Your task to perform on an android device: open the mobile data screen to see how much data has been used Image 0: 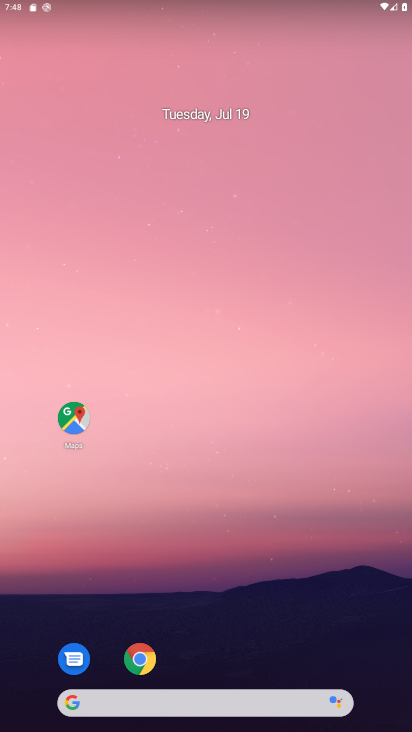
Step 0: drag from (217, 671) to (267, 1)
Your task to perform on an android device: open the mobile data screen to see how much data has been used Image 1: 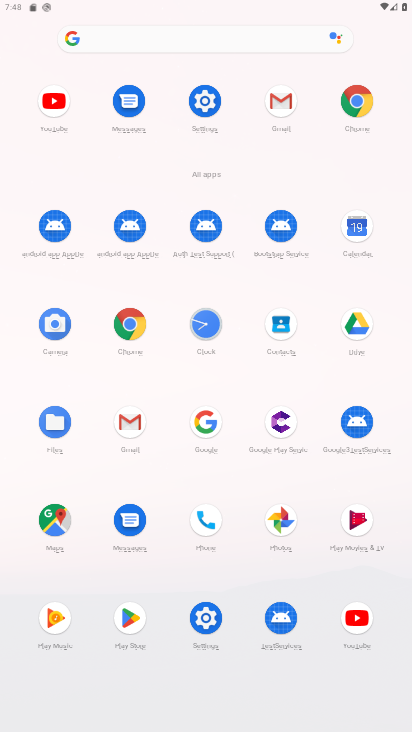
Step 1: click (202, 107)
Your task to perform on an android device: open the mobile data screen to see how much data has been used Image 2: 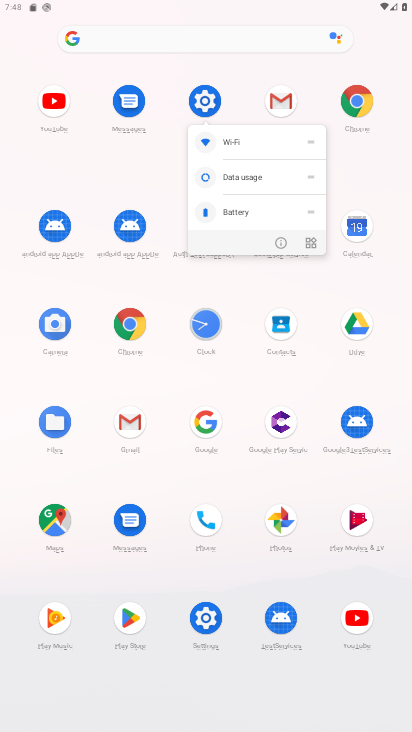
Step 2: click (202, 105)
Your task to perform on an android device: open the mobile data screen to see how much data has been used Image 3: 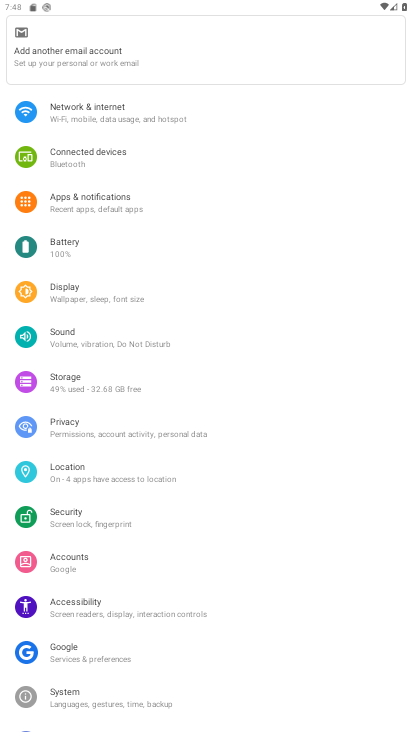
Step 3: click (108, 116)
Your task to perform on an android device: open the mobile data screen to see how much data has been used Image 4: 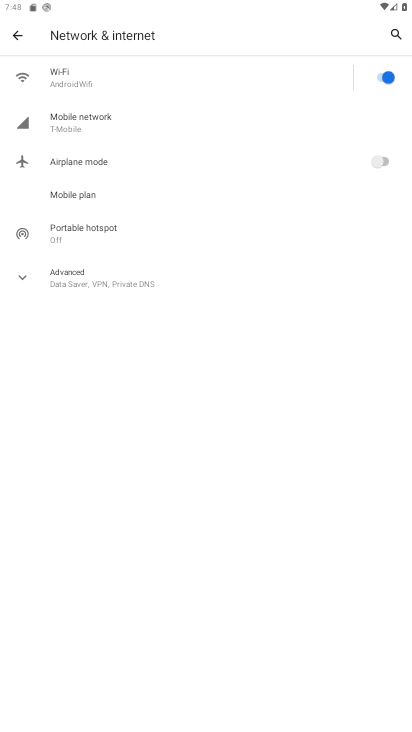
Step 4: click (95, 121)
Your task to perform on an android device: open the mobile data screen to see how much data has been used Image 5: 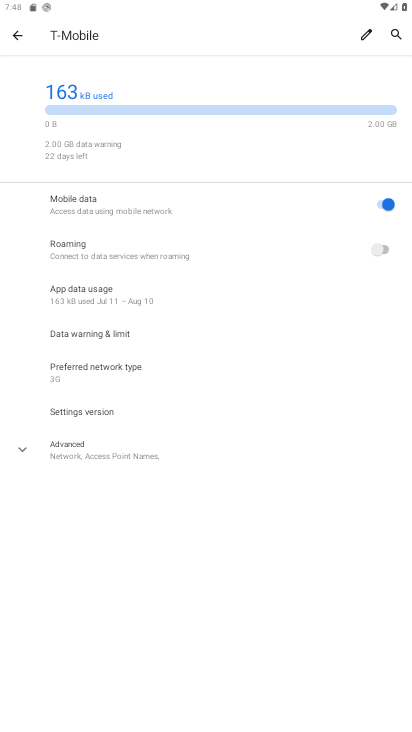
Step 5: click (118, 299)
Your task to perform on an android device: open the mobile data screen to see how much data has been used Image 6: 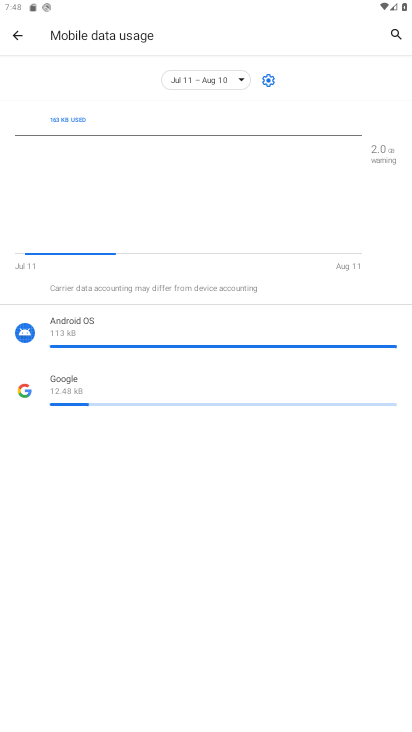
Step 6: task complete